Your task to perform on an android device: turn off location Image 0: 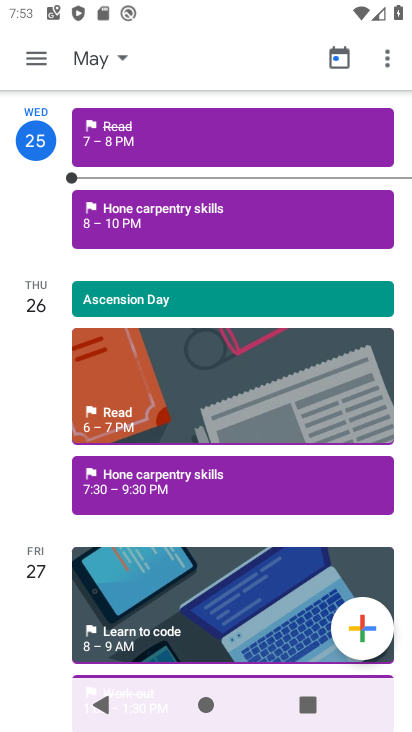
Step 0: press home button
Your task to perform on an android device: turn off location Image 1: 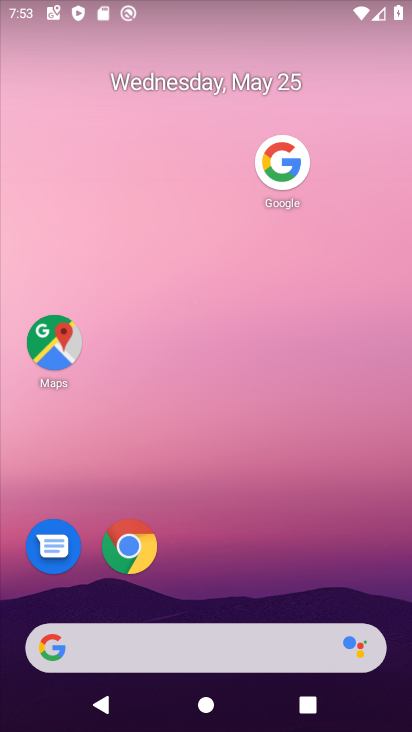
Step 1: drag from (203, 638) to (337, 168)
Your task to perform on an android device: turn off location Image 2: 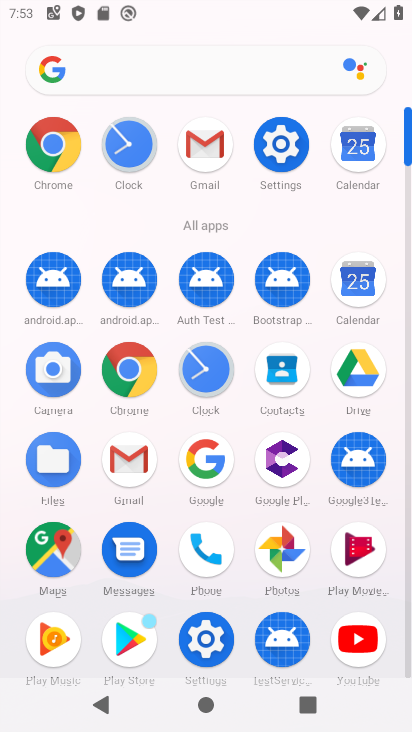
Step 2: click (282, 142)
Your task to perform on an android device: turn off location Image 3: 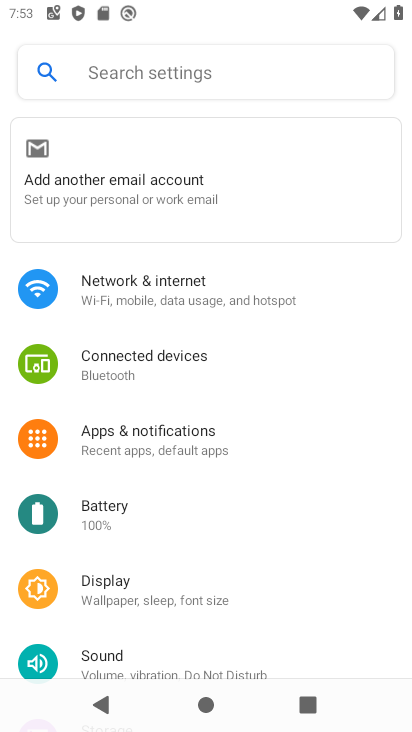
Step 3: drag from (260, 619) to (407, 194)
Your task to perform on an android device: turn off location Image 4: 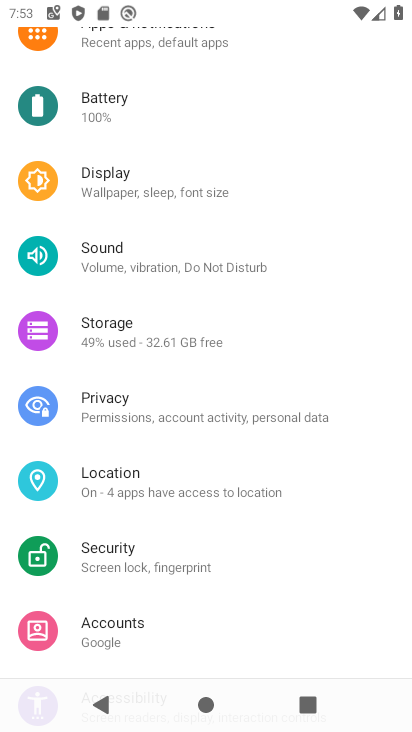
Step 4: click (177, 489)
Your task to perform on an android device: turn off location Image 5: 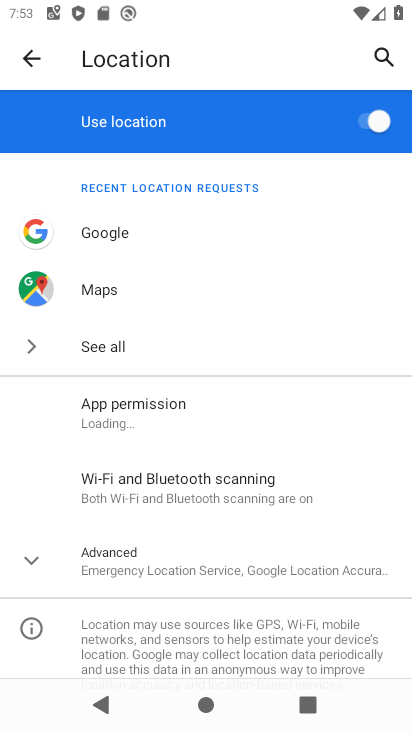
Step 5: click (365, 125)
Your task to perform on an android device: turn off location Image 6: 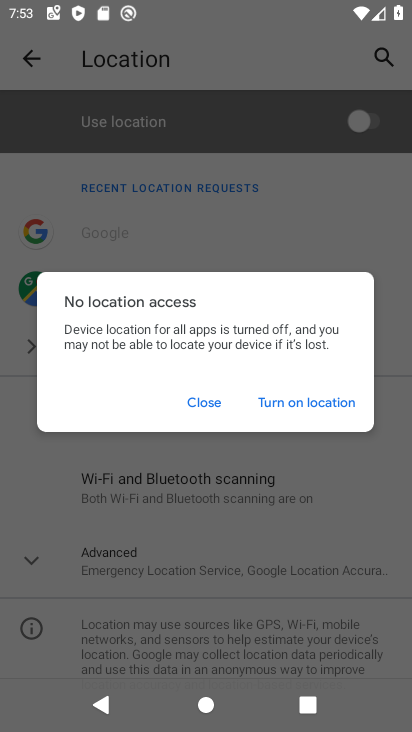
Step 6: click (210, 401)
Your task to perform on an android device: turn off location Image 7: 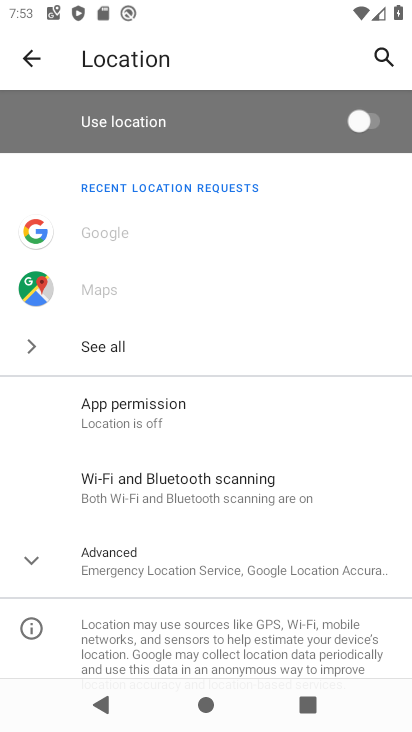
Step 7: task complete